Your task to perform on an android device: Open my contact list Image 0: 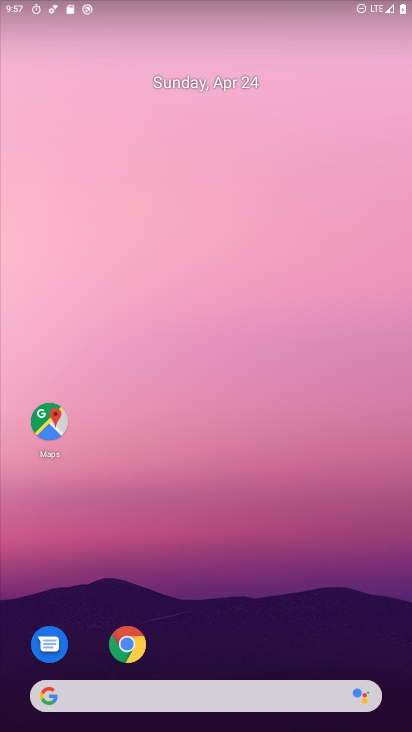
Step 0: drag from (197, 678) to (357, 20)
Your task to perform on an android device: Open my contact list Image 1: 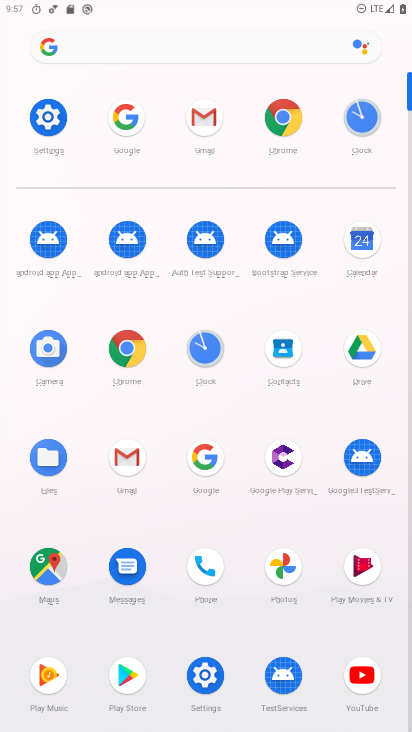
Step 1: click (213, 575)
Your task to perform on an android device: Open my contact list Image 2: 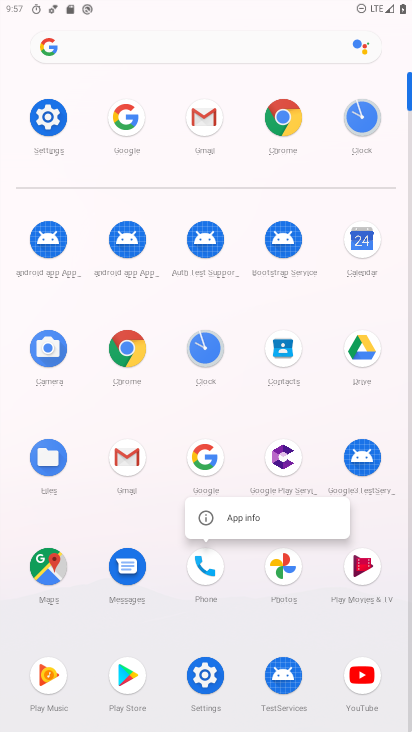
Step 2: click (193, 562)
Your task to perform on an android device: Open my contact list Image 3: 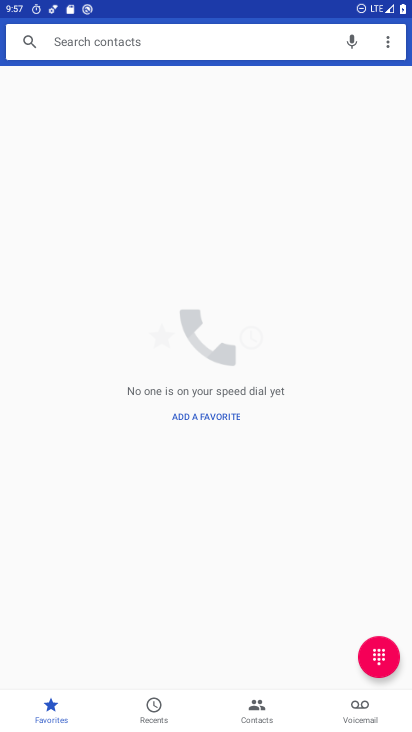
Step 3: click (260, 695)
Your task to perform on an android device: Open my contact list Image 4: 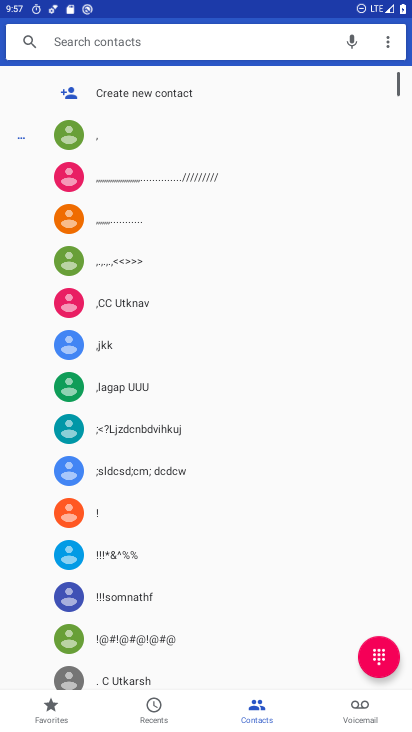
Step 4: task complete